Your task to perform on an android device: Open display settings Image 0: 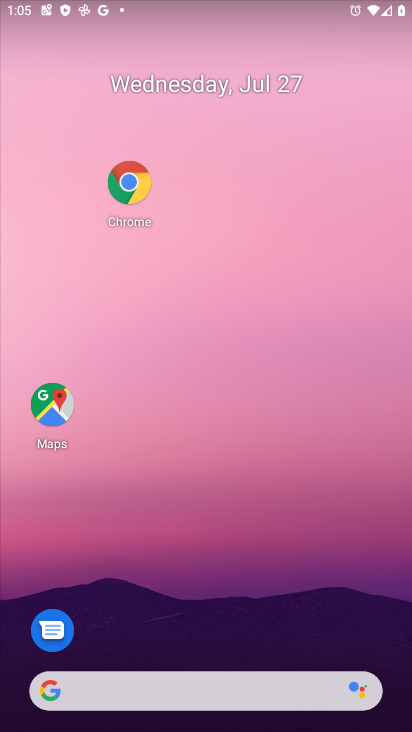
Step 0: drag from (249, 726) to (257, 155)
Your task to perform on an android device: Open display settings Image 1: 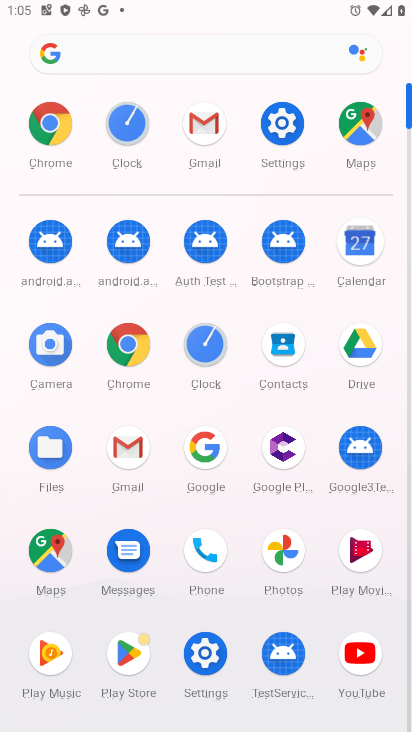
Step 1: click (276, 120)
Your task to perform on an android device: Open display settings Image 2: 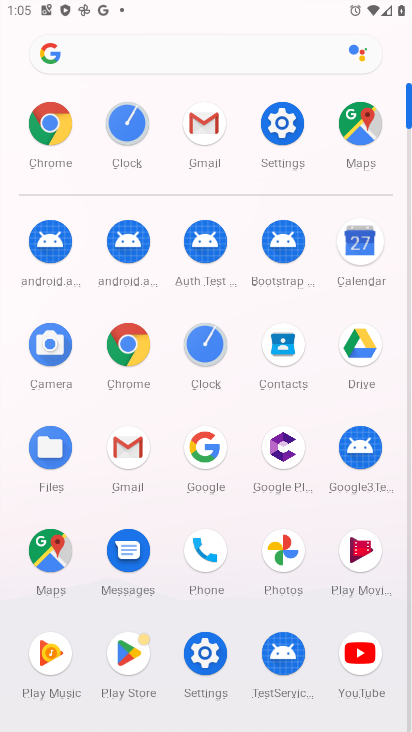
Step 2: click (276, 120)
Your task to perform on an android device: Open display settings Image 3: 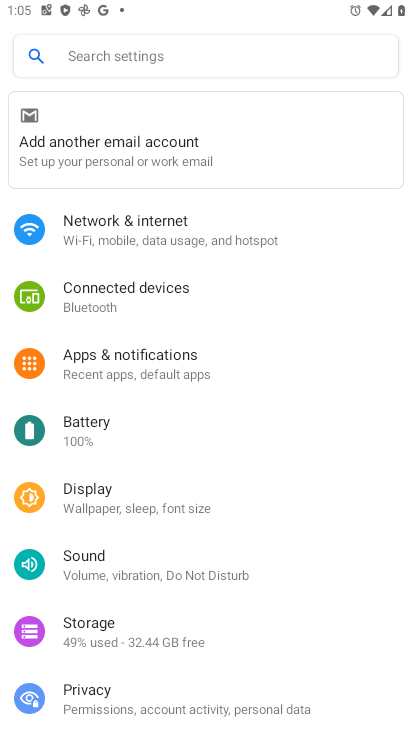
Step 3: click (148, 504)
Your task to perform on an android device: Open display settings Image 4: 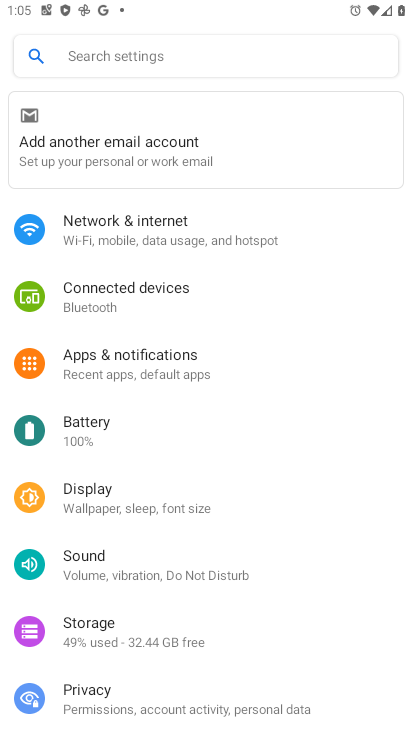
Step 4: click (148, 504)
Your task to perform on an android device: Open display settings Image 5: 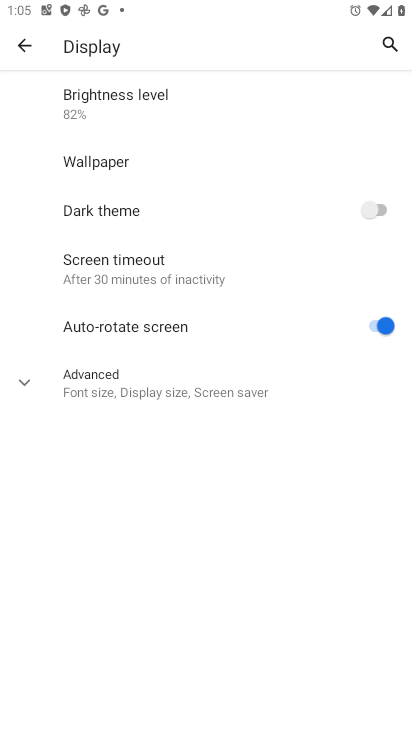
Step 5: task complete